Your task to perform on an android device: Open calendar and show me the fourth week of next month Image 0: 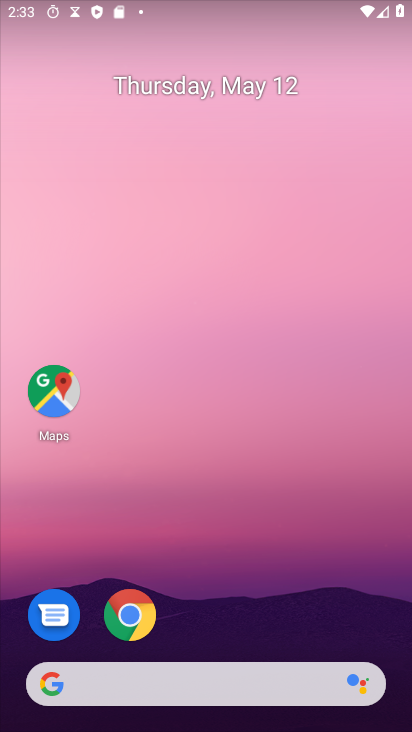
Step 0: drag from (47, 363) to (167, 76)
Your task to perform on an android device: Open calendar and show me the fourth week of next month Image 1: 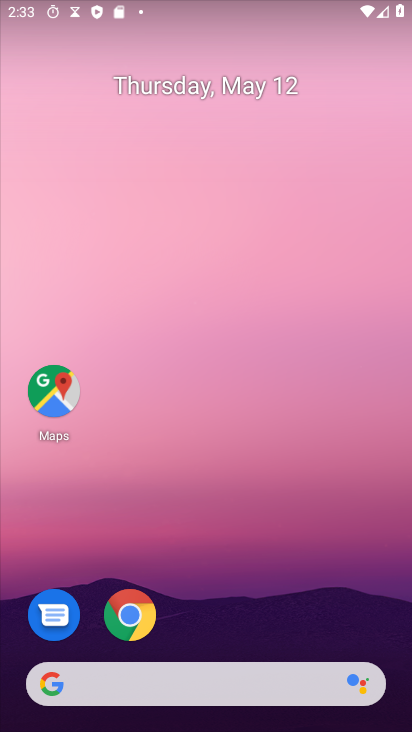
Step 1: drag from (54, 502) to (332, 44)
Your task to perform on an android device: Open calendar and show me the fourth week of next month Image 2: 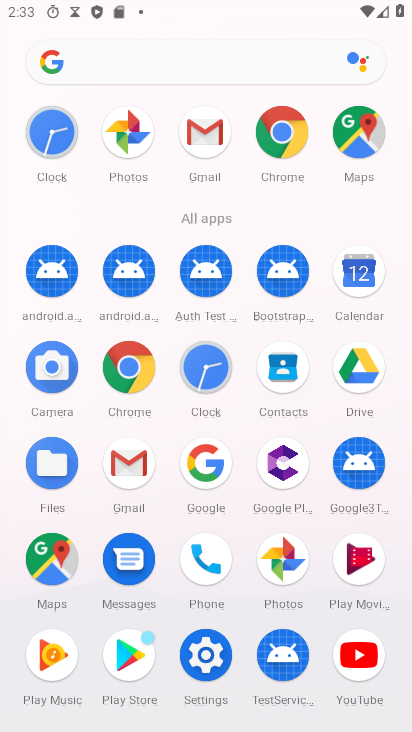
Step 2: click (379, 266)
Your task to perform on an android device: Open calendar and show me the fourth week of next month Image 3: 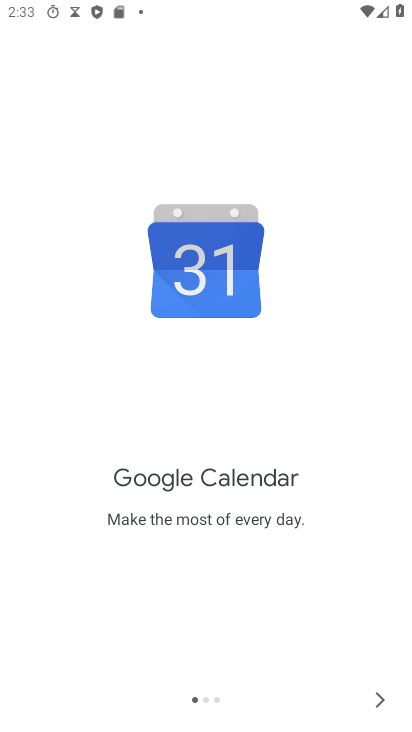
Step 3: click (377, 700)
Your task to perform on an android device: Open calendar and show me the fourth week of next month Image 4: 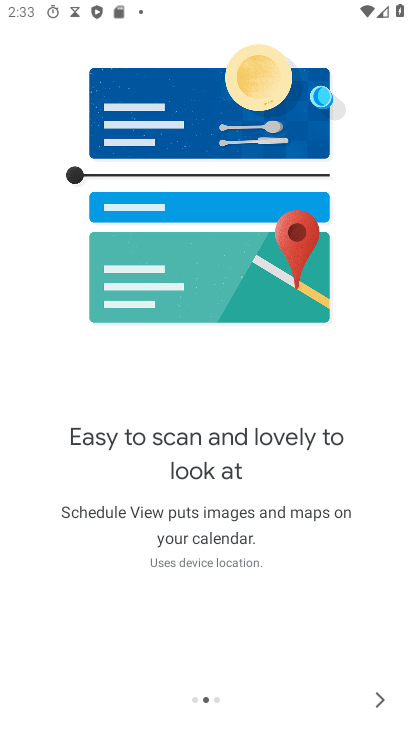
Step 4: click (377, 700)
Your task to perform on an android device: Open calendar and show me the fourth week of next month Image 5: 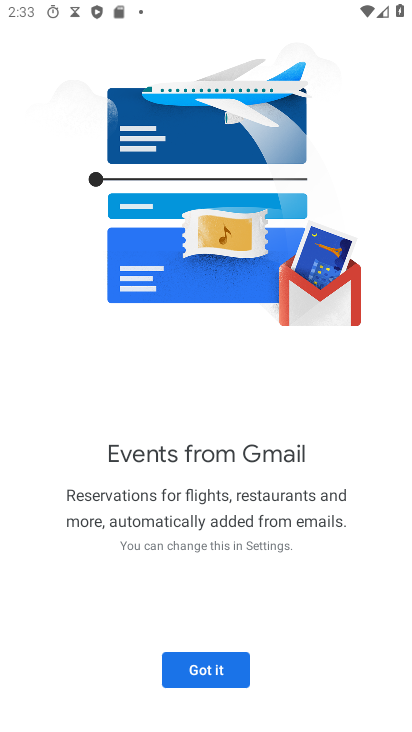
Step 5: click (213, 675)
Your task to perform on an android device: Open calendar and show me the fourth week of next month Image 6: 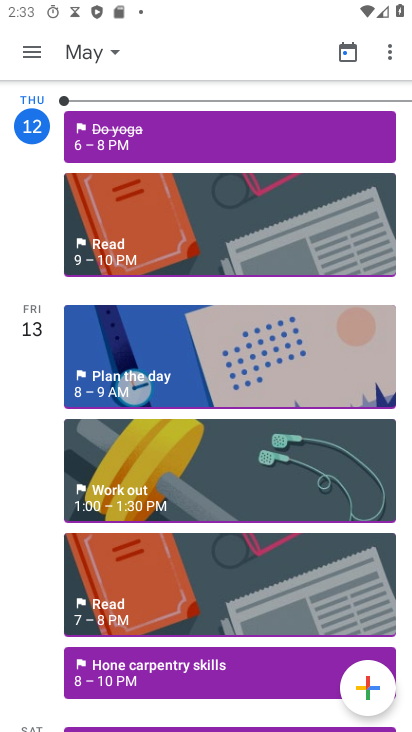
Step 6: click (82, 59)
Your task to perform on an android device: Open calendar and show me the fourth week of next month Image 7: 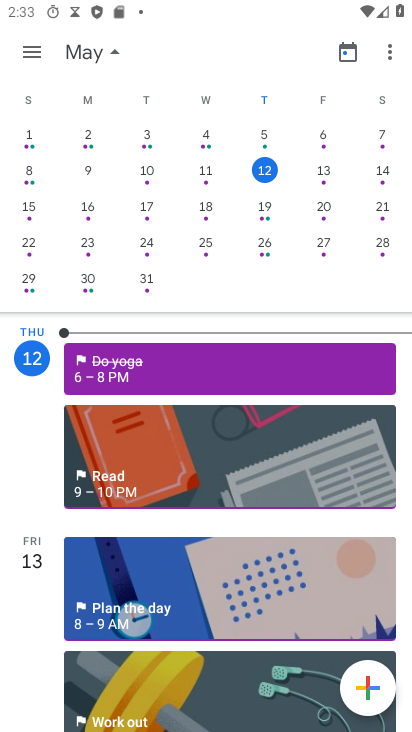
Step 7: drag from (392, 218) to (27, 171)
Your task to perform on an android device: Open calendar and show me the fourth week of next month Image 8: 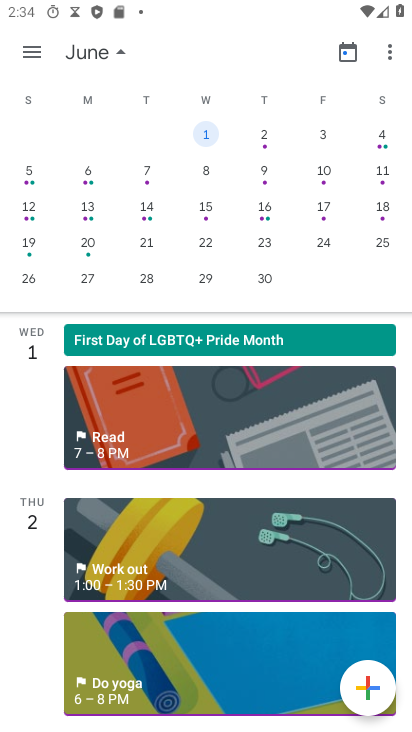
Step 8: click (207, 178)
Your task to perform on an android device: Open calendar and show me the fourth week of next month Image 9: 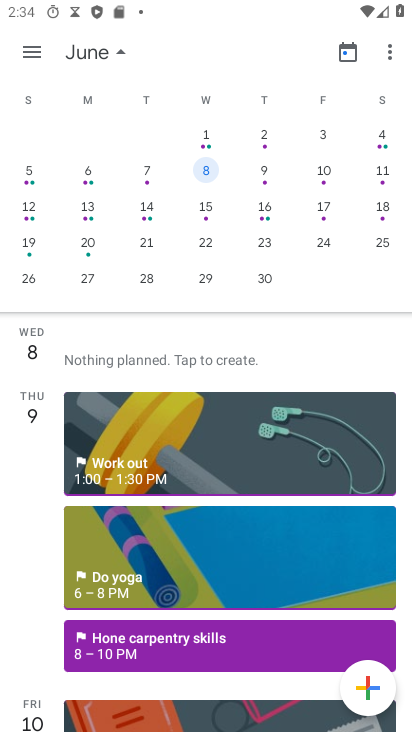
Step 9: click (208, 208)
Your task to perform on an android device: Open calendar and show me the fourth week of next month Image 10: 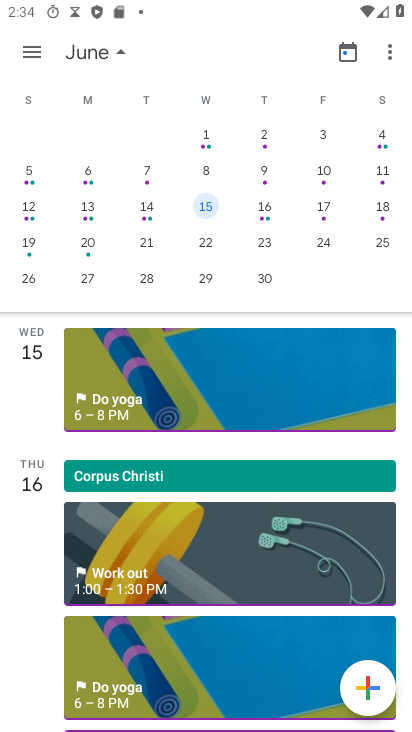
Step 10: click (211, 240)
Your task to perform on an android device: Open calendar and show me the fourth week of next month Image 11: 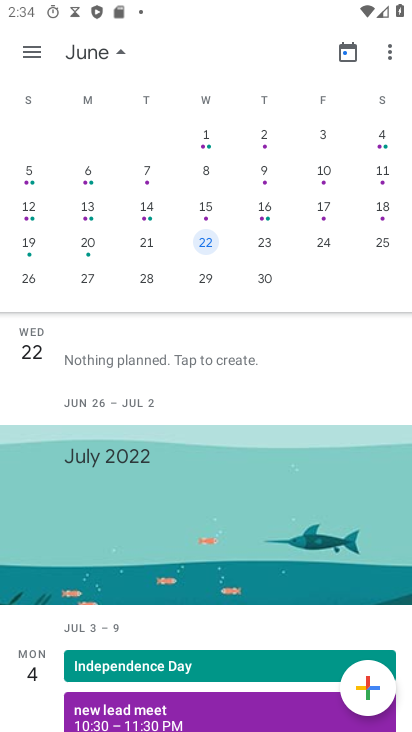
Step 11: task complete